Your task to perform on an android device: Clear the shopping cart on ebay.com. Search for "acer predator" on ebay.com, select the first entry, add it to the cart, then select checkout. Image 0: 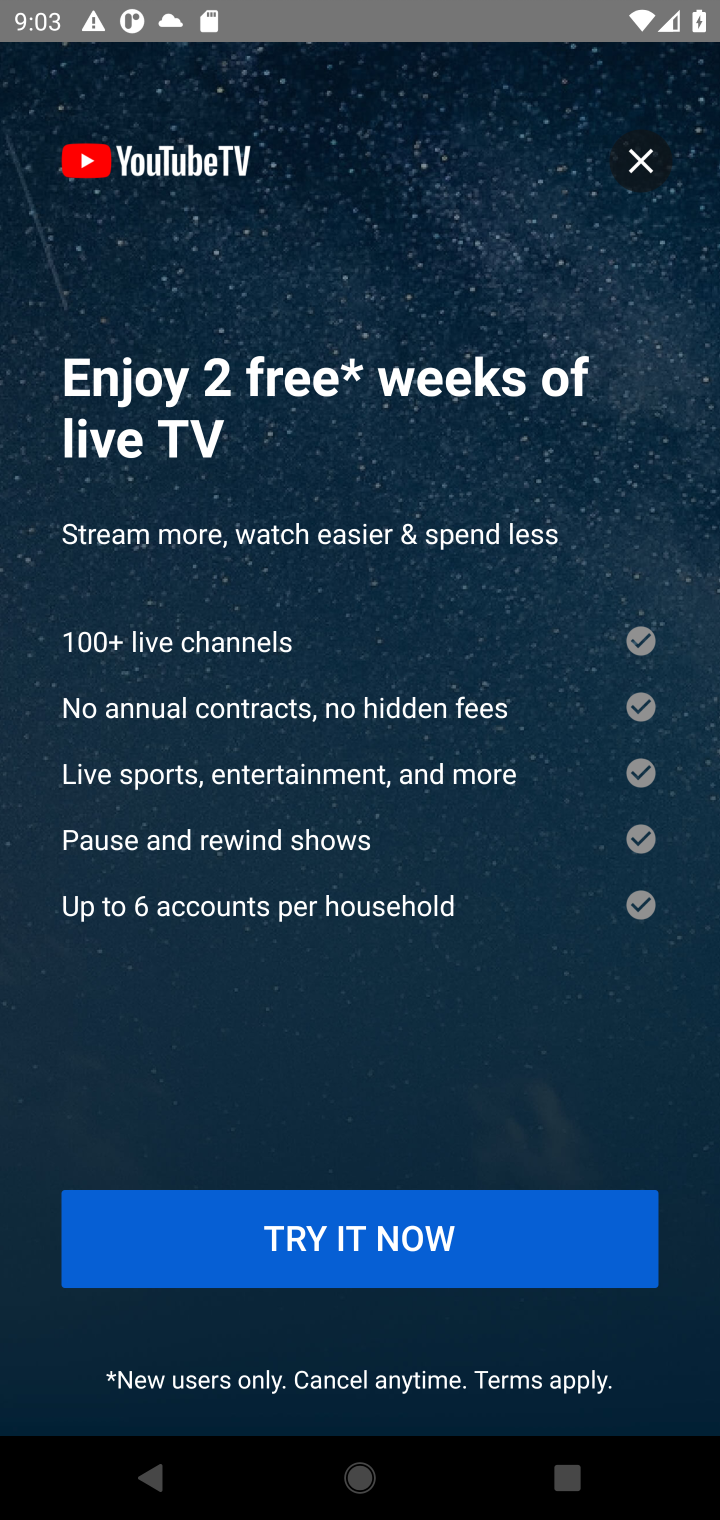
Step 0: press home button
Your task to perform on an android device: Clear the shopping cart on ebay.com. Search for "acer predator" on ebay.com, select the first entry, add it to the cart, then select checkout. Image 1: 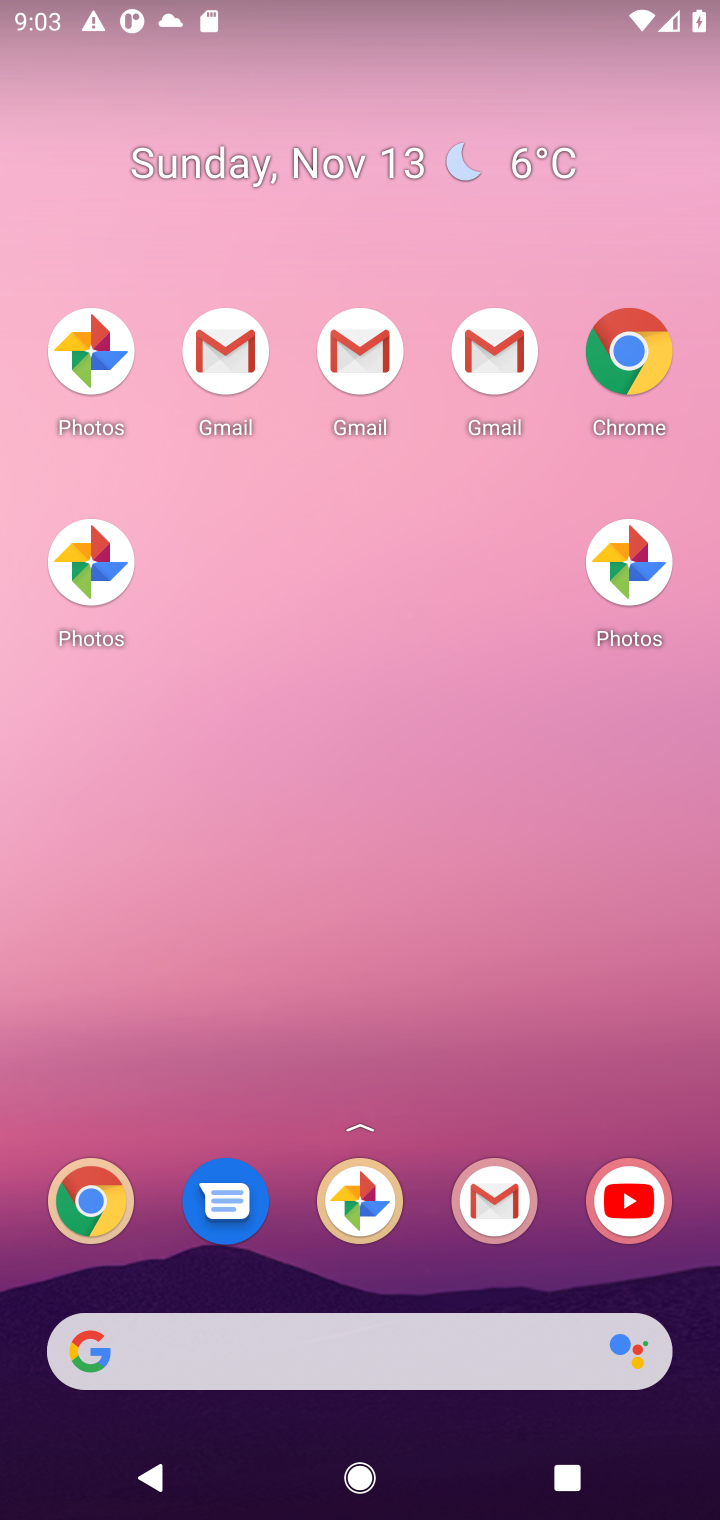
Step 1: drag from (396, 1301) to (433, 232)
Your task to perform on an android device: Clear the shopping cart on ebay.com. Search for "acer predator" on ebay.com, select the first entry, add it to the cart, then select checkout. Image 2: 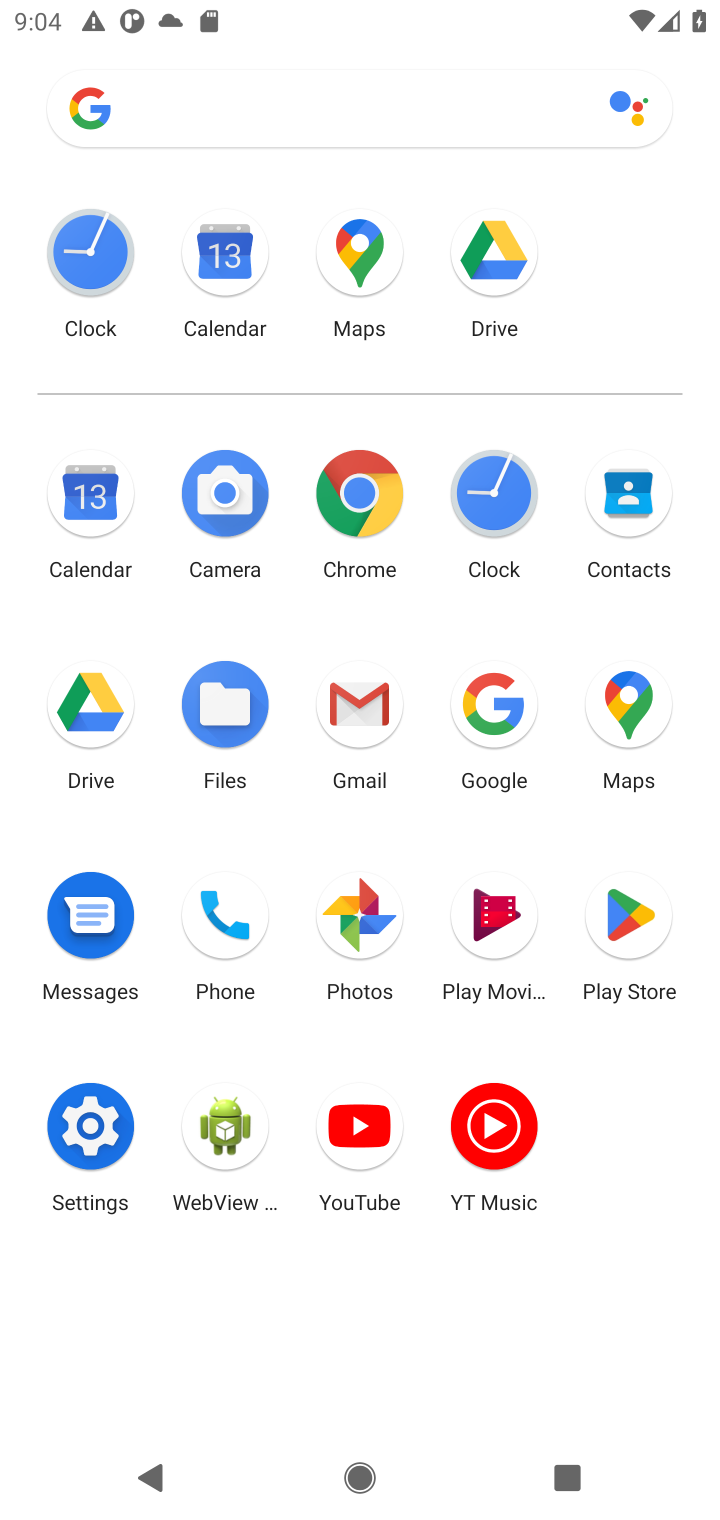
Step 2: click (358, 508)
Your task to perform on an android device: Clear the shopping cart on ebay.com. Search for "acer predator" on ebay.com, select the first entry, add it to the cart, then select checkout. Image 3: 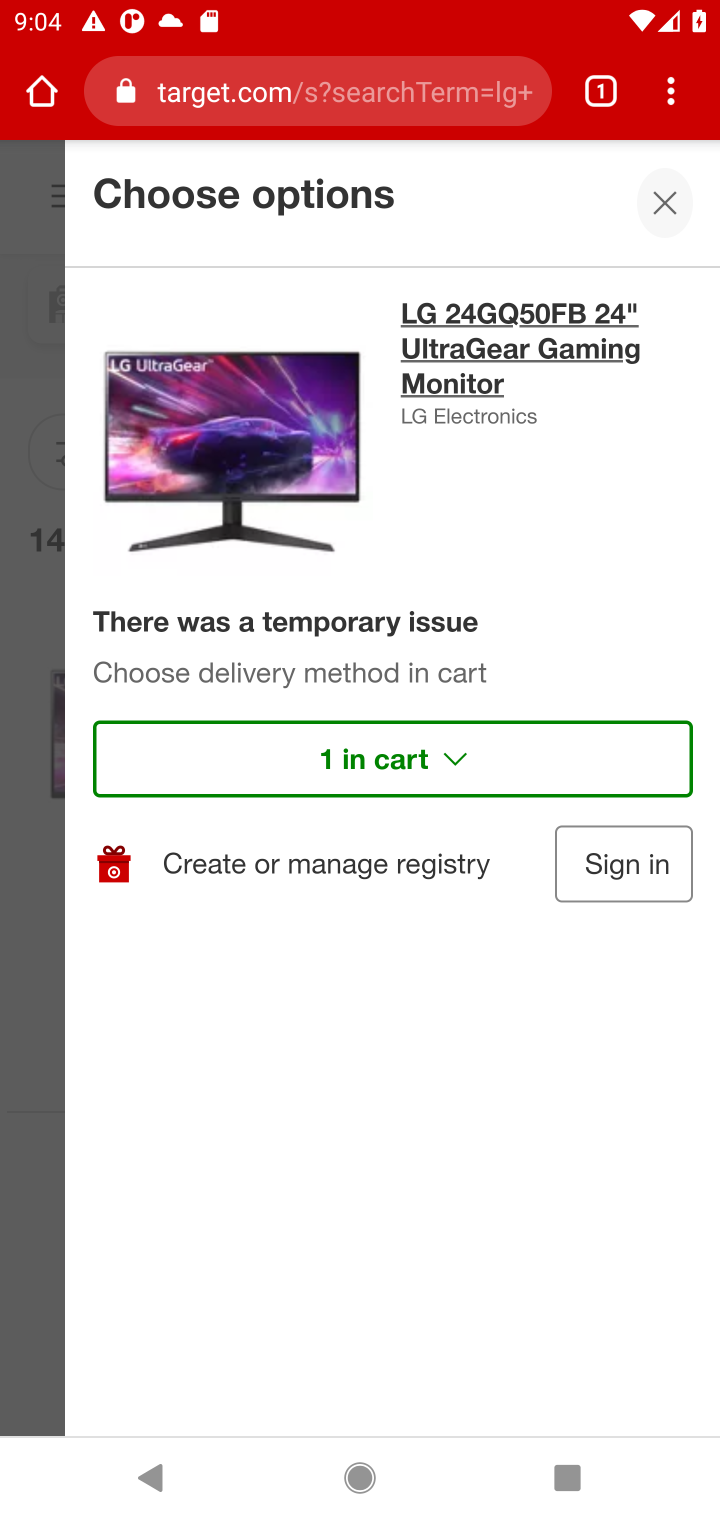
Step 3: click (285, 88)
Your task to perform on an android device: Clear the shopping cart on ebay.com. Search for "acer predator" on ebay.com, select the first entry, add it to the cart, then select checkout. Image 4: 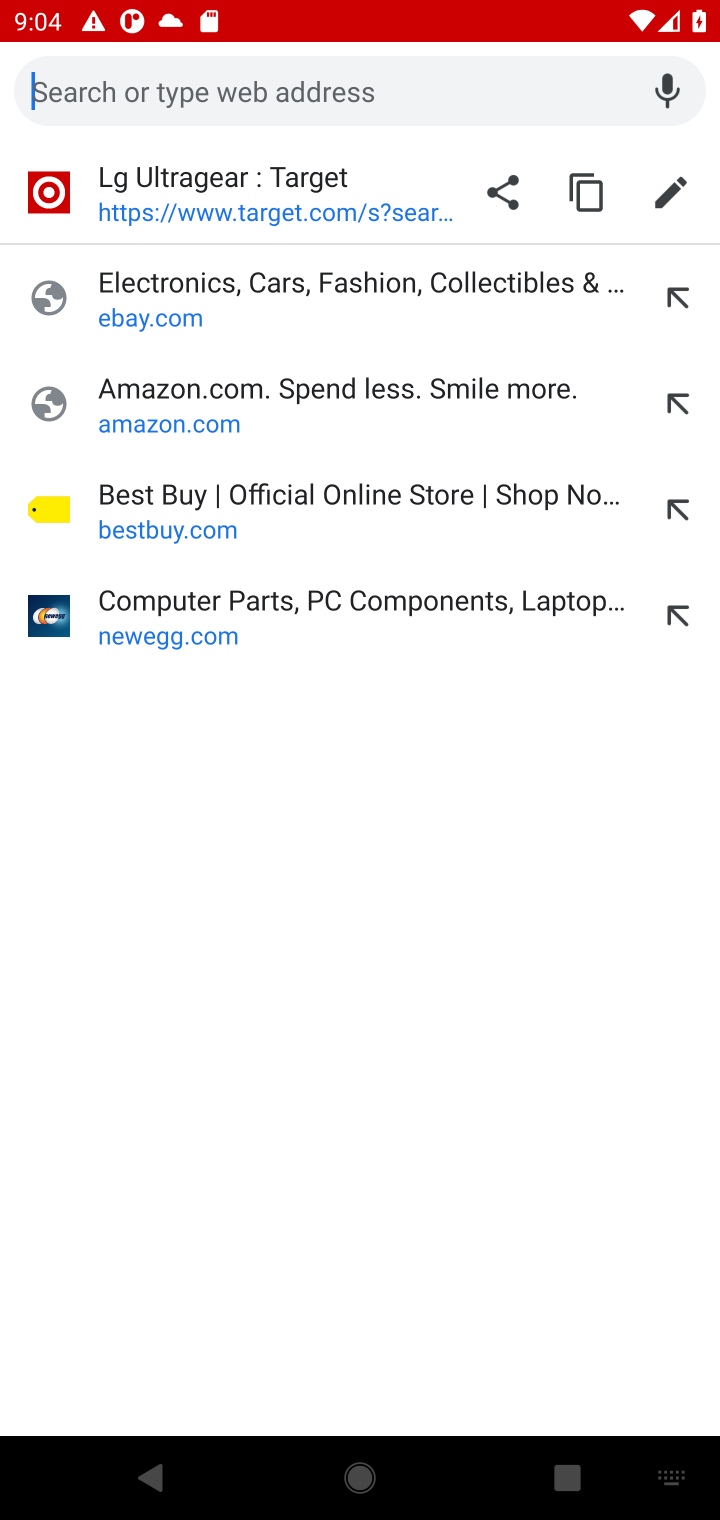
Step 4: type "ebay.com"
Your task to perform on an android device: Clear the shopping cart on ebay.com. Search for "acer predator" on ebay.com, select the first entry, add it to the cart, then select checkout. Image 5: 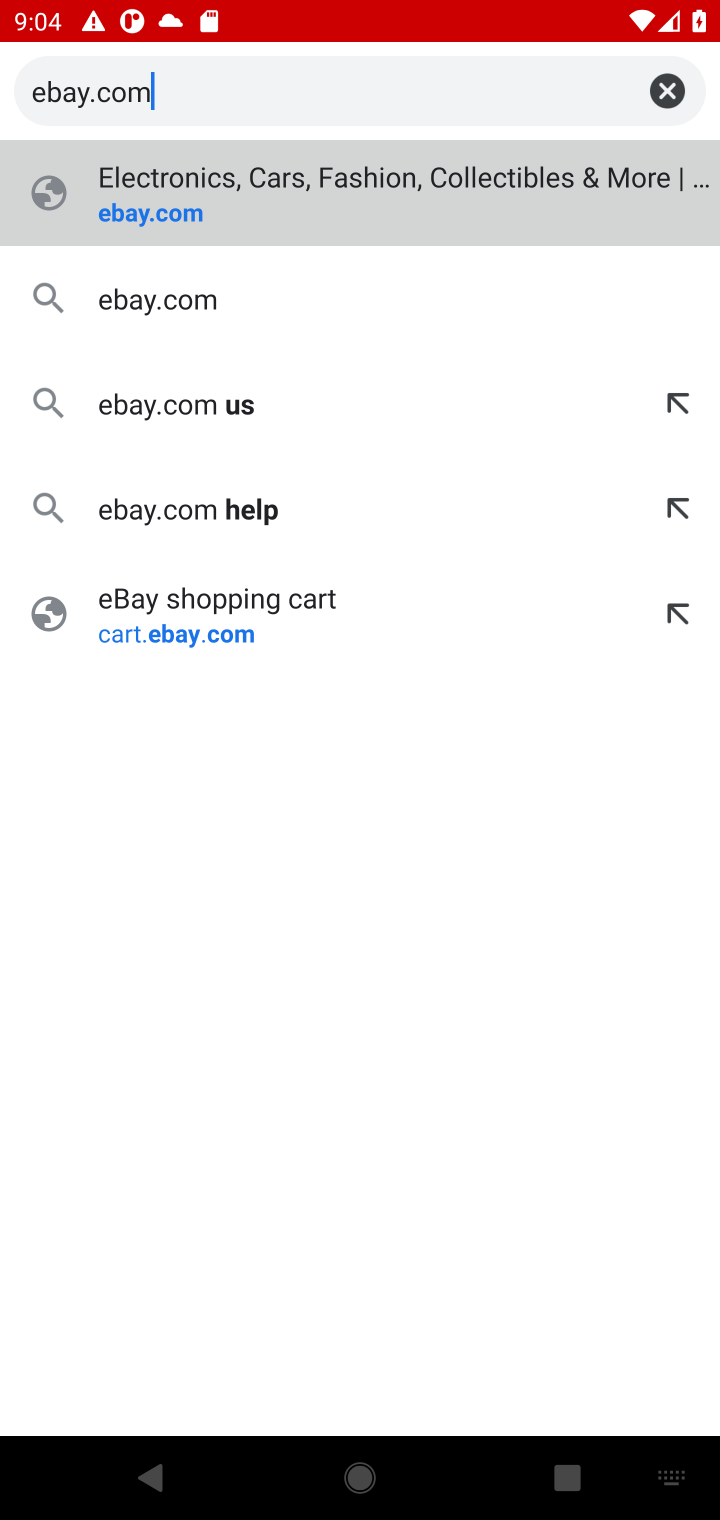
Step 5: press enter
Your task to perform on an android device: Clear the shopping cart on ebay.com. Search for "acer predator" on ebay.com, select the first entry, add it to the cart, then select checkout. Image 6: 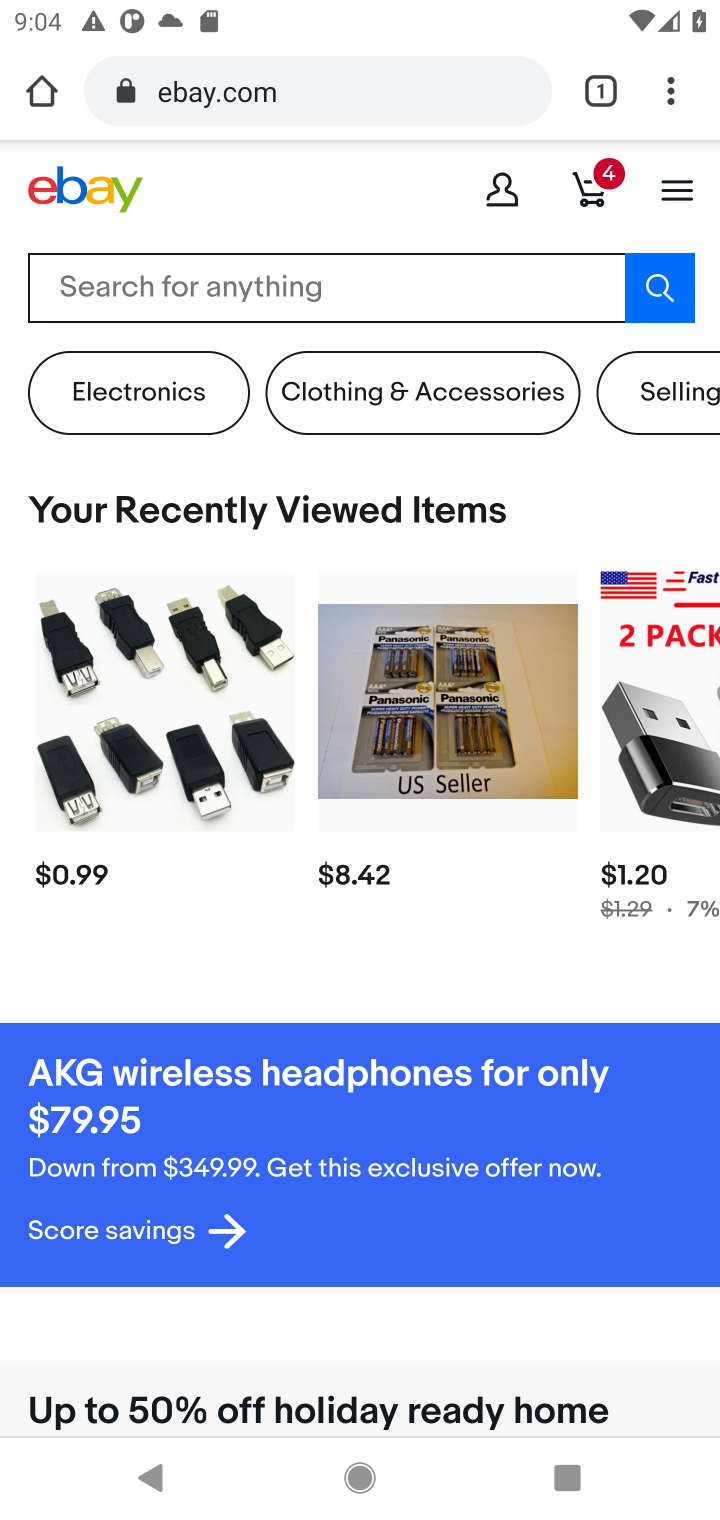
Step 6: click (586, 176)
Your task to perform on an android device: Clear the shopping cart on ebay.com. Search for "acer predator" on ebay.com, select the first entry, add it to the cart, then select checkout. Image 7: 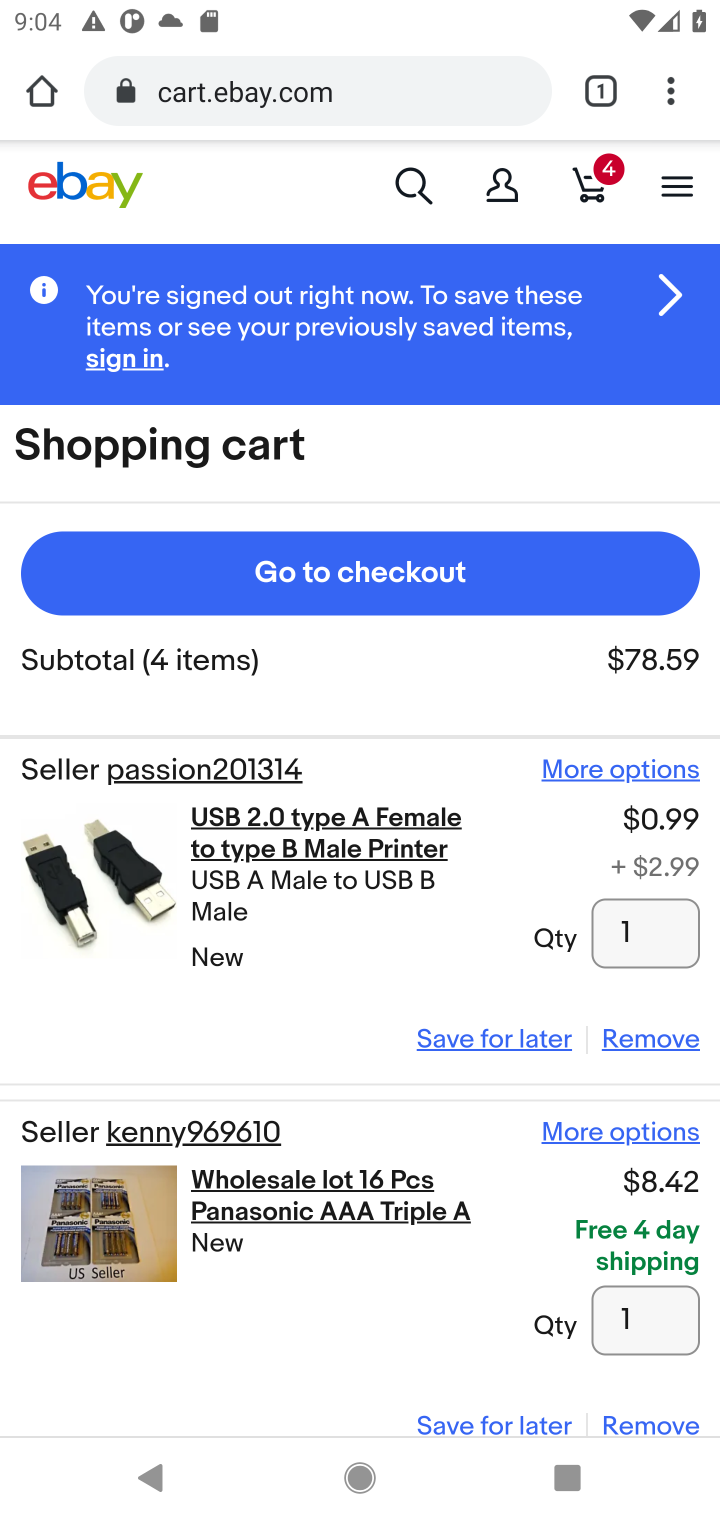
Step 7: click (633, 1040)
Your task to perform on an android device: Clear the shopping cart on ebay.com. Search for "acer predator" on ebay.com, select the first entry, add it to the cart, then select checkout. Image 8: 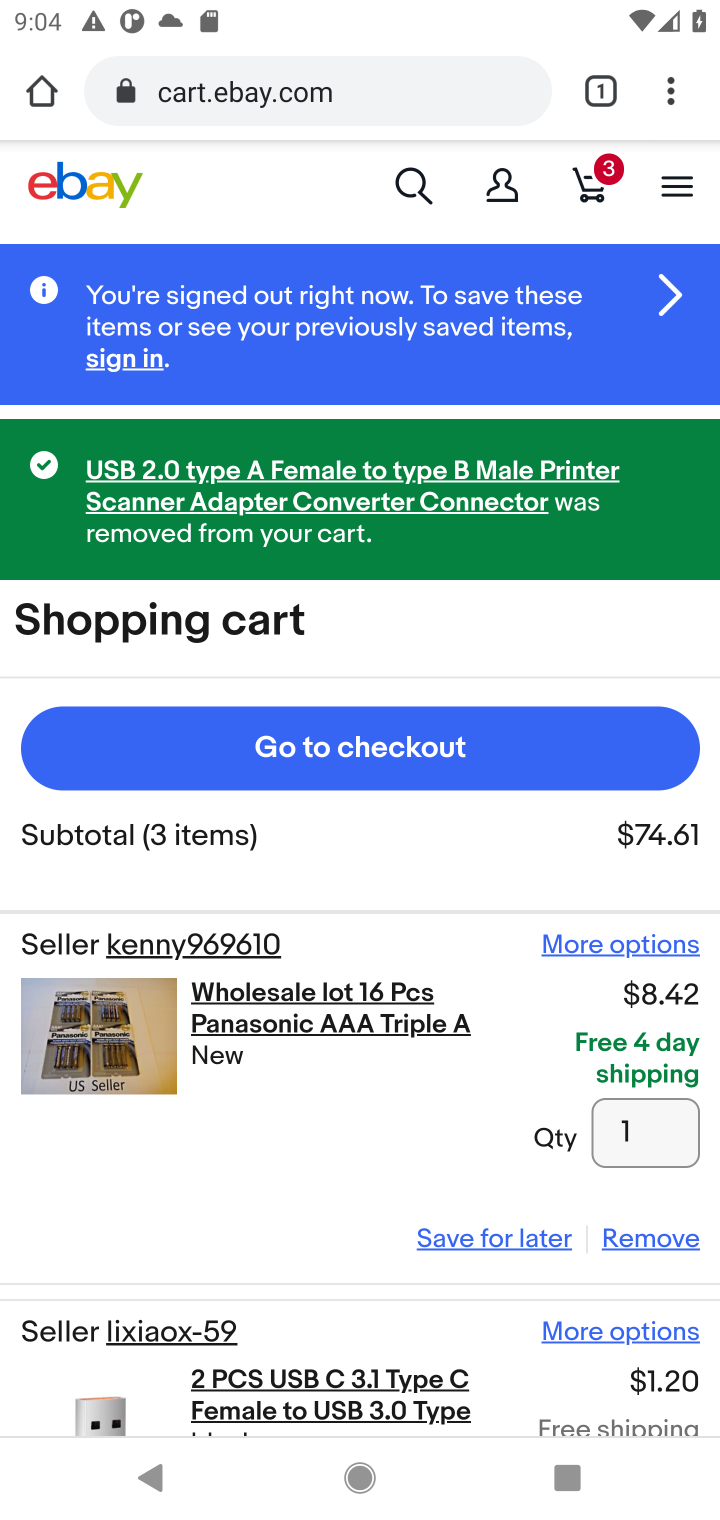
Step 8: click (650, 1226)
Your task to perform on an android device: Clear the shopping cart on ebay.com. Search for "acer predator" on ebay.com, select the first entry, add it to the cart, then select checkout. Image 9: 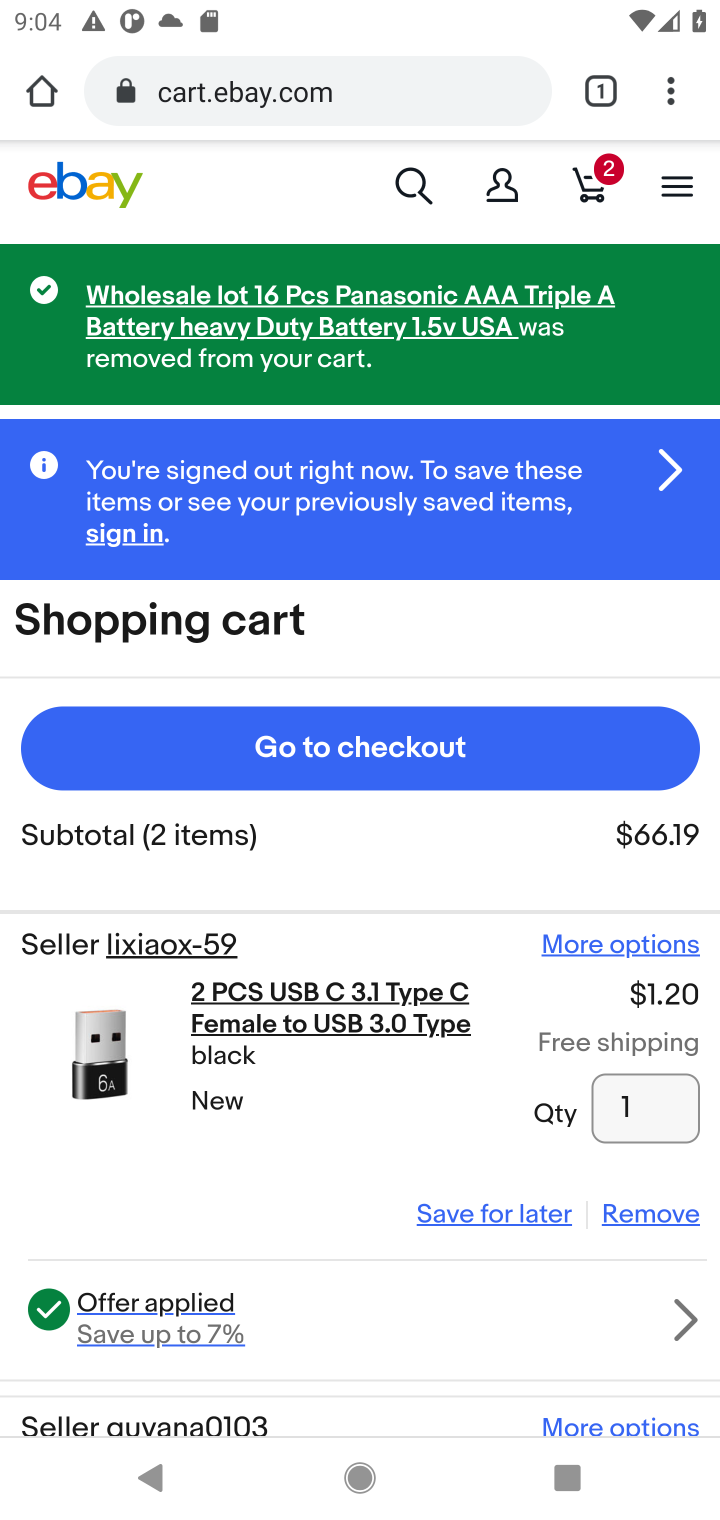
Step 9: click (652, 1211)
Your task to perform on an android device: Clear the shopping cart on ebay.com. Search for "acer predator" on ebay.com, select the first entry, add it to the cart, then select checkout. Image 10: 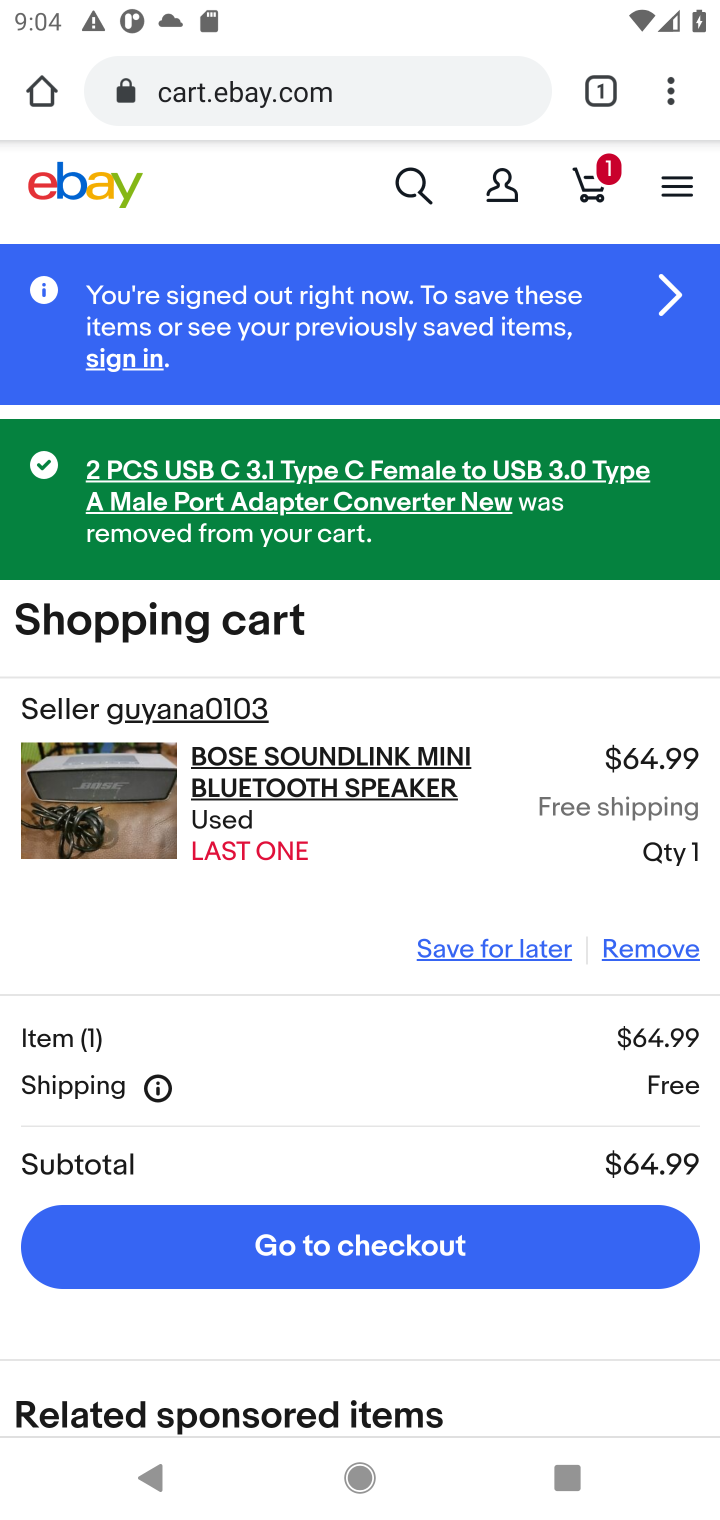
Step 10: click (658, 957)
Your task to perform on an android device: Clear the shopping cart on ebay.com. Search for "acer predator" on ebay.com, select the first entry, add it to the cart, then select checkout. Image 11: 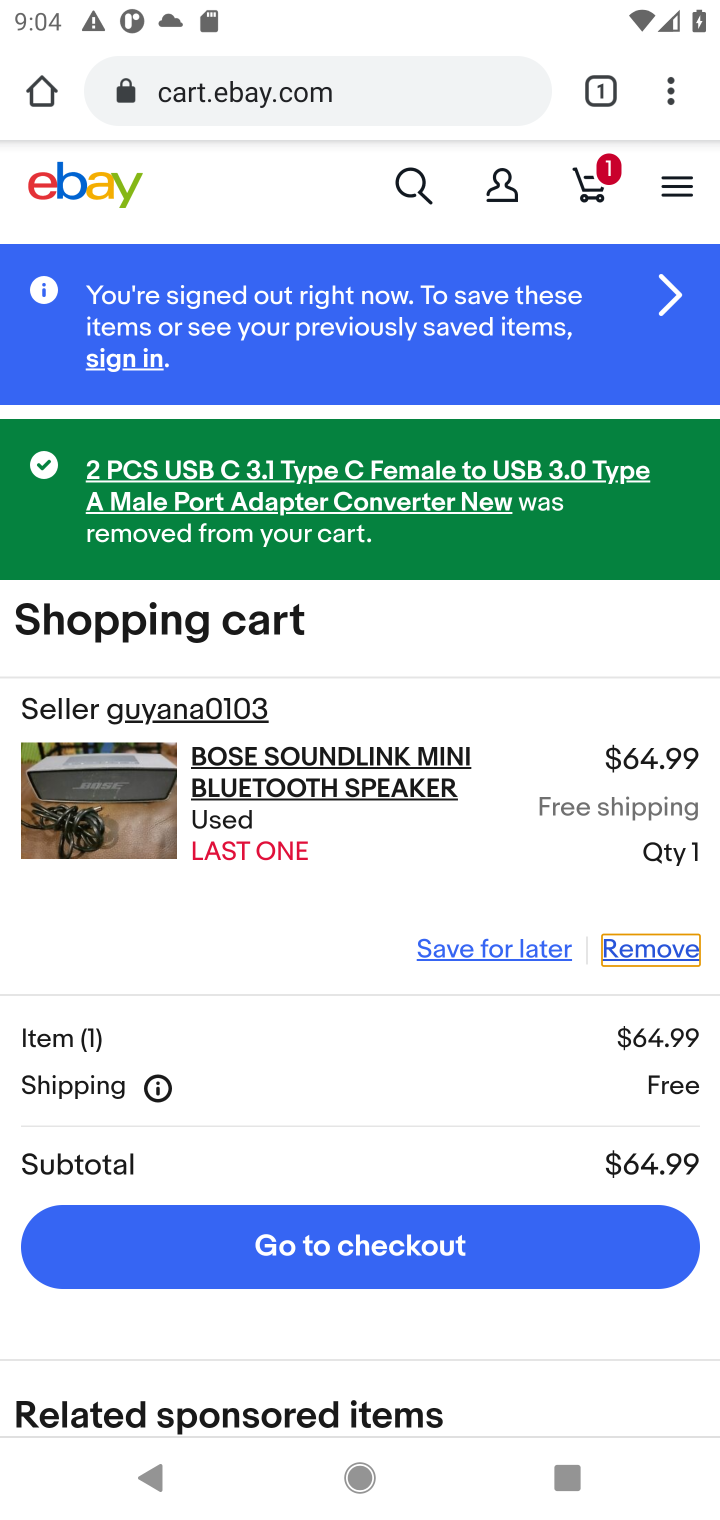
Step 11: click (651, 944)
Your task to perform on an android device: Clear the shopping cart on ebay.com. Search for "acer predator" on ebay.com, select the first entry, add it to the cart, then select checkout. Image 12: 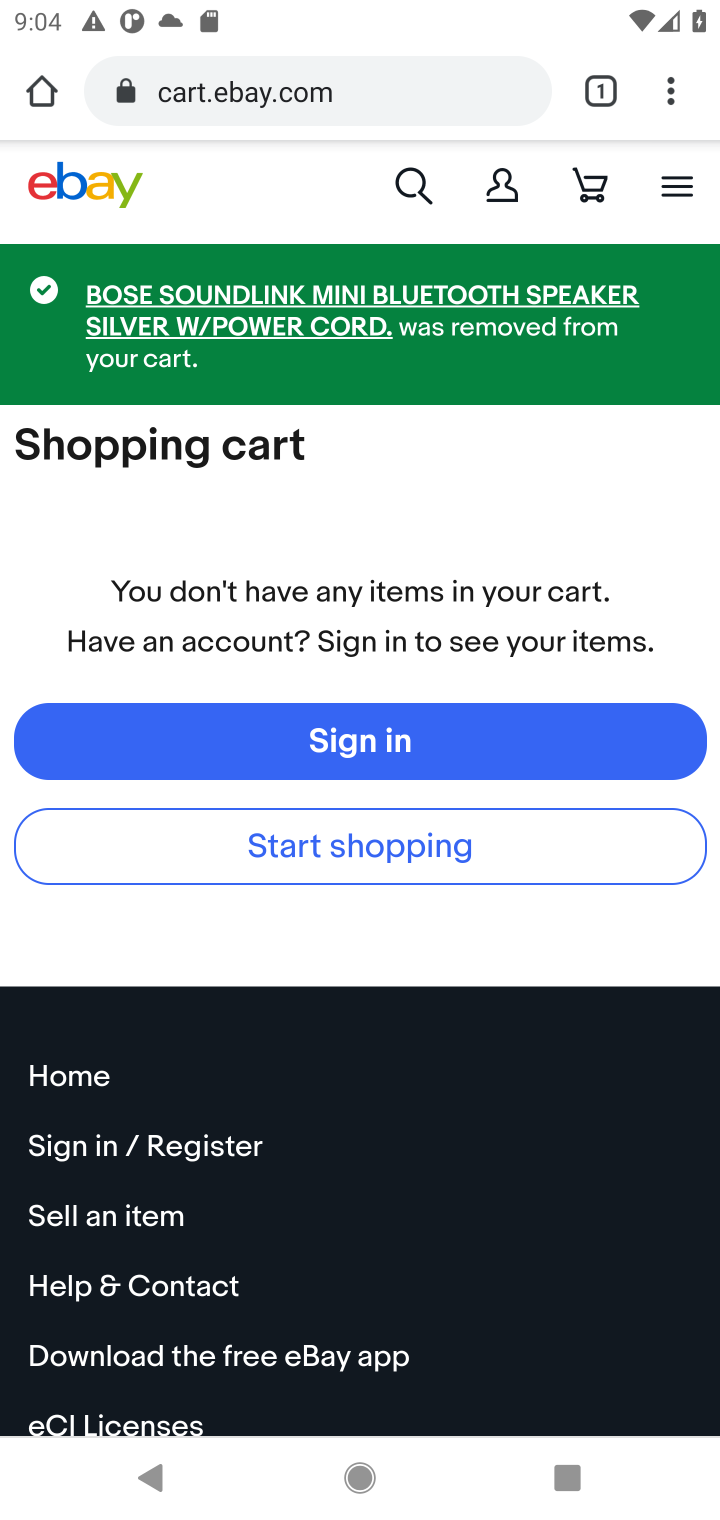
Step 12: click (405, 194)
Your task to perform on an android device: Clear the shopping cart on ebay.com. Search for "acer predator" on ebay.com, select the first entry, add it to the cart, then select checkout. Image 13: 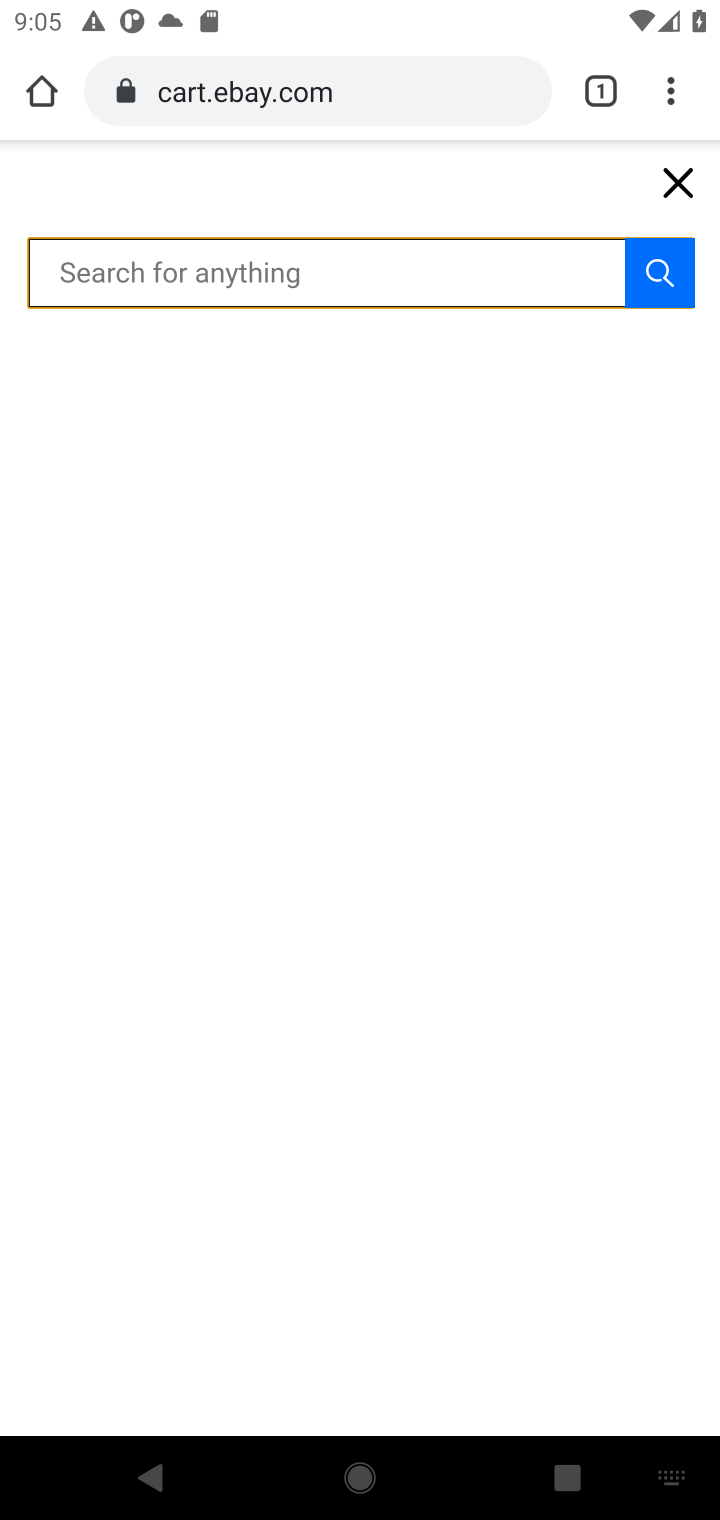
Step 13: type "acer predator"
Your task to perform on an android device: Clear the shopping cart on ebay.com. Search for "acer predator" on ebay.com, select the first entry, add it to the cart, then select checkout. Image 14: 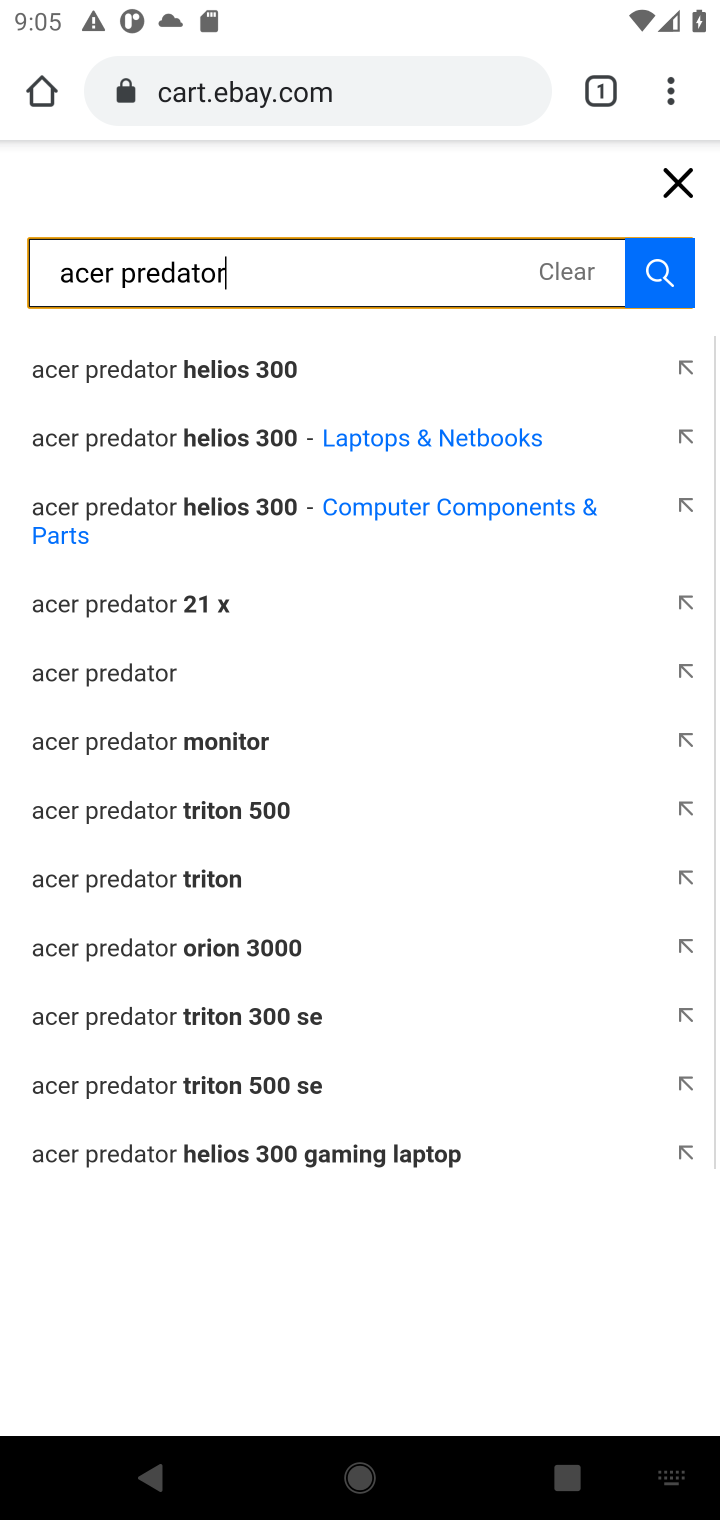
Step 14: press enter
Your task to perform on an android device: Clear the shopping cart on ebay.com. Search for "acer predator" on ebay.com, select the first entry, add it to the cart, then select checkout. Image 15: 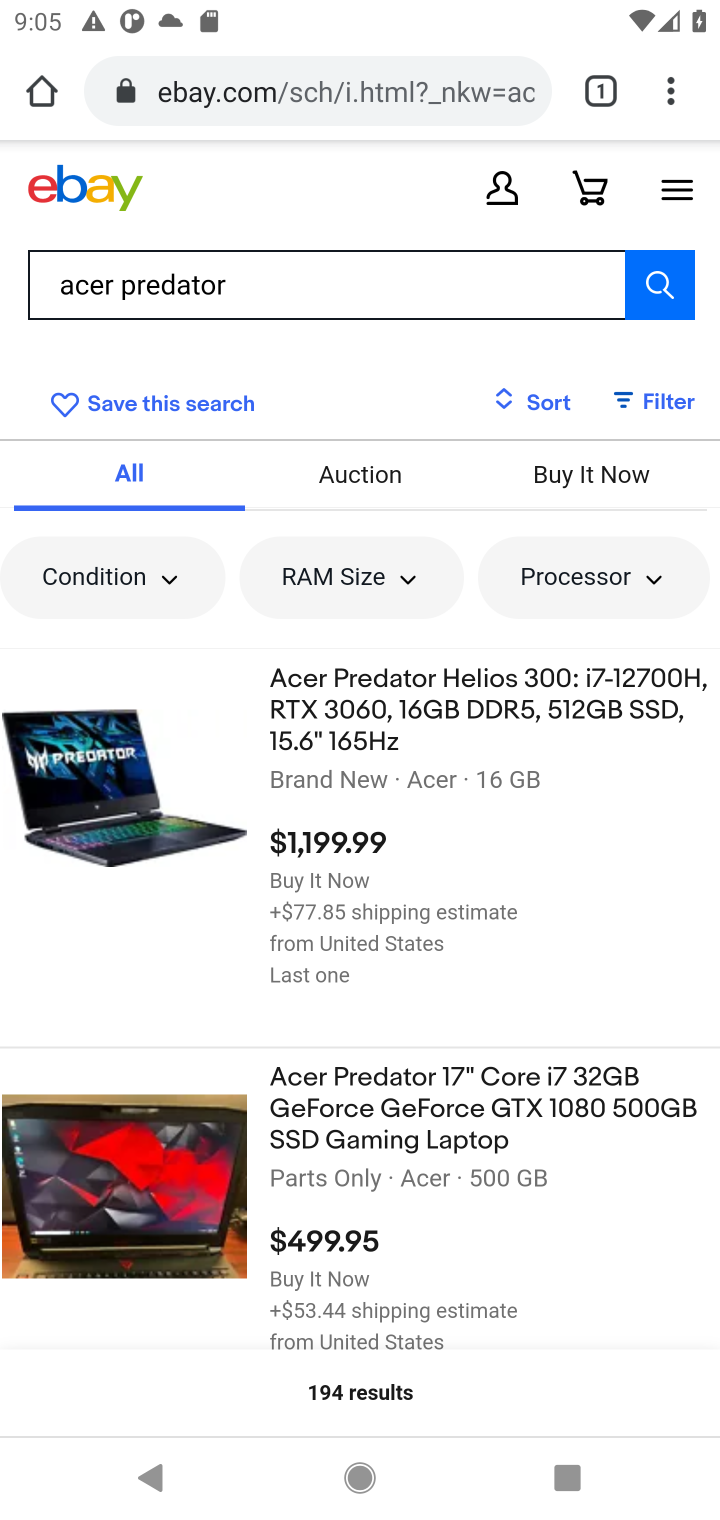
Step 15: click (404, 708)
Your task to perform on an android device: Clear the shopping cart on ebay.com. Search for "acer predator" on ebay.com, select the first entry, add it to the cart, then select checkout. Image 16: 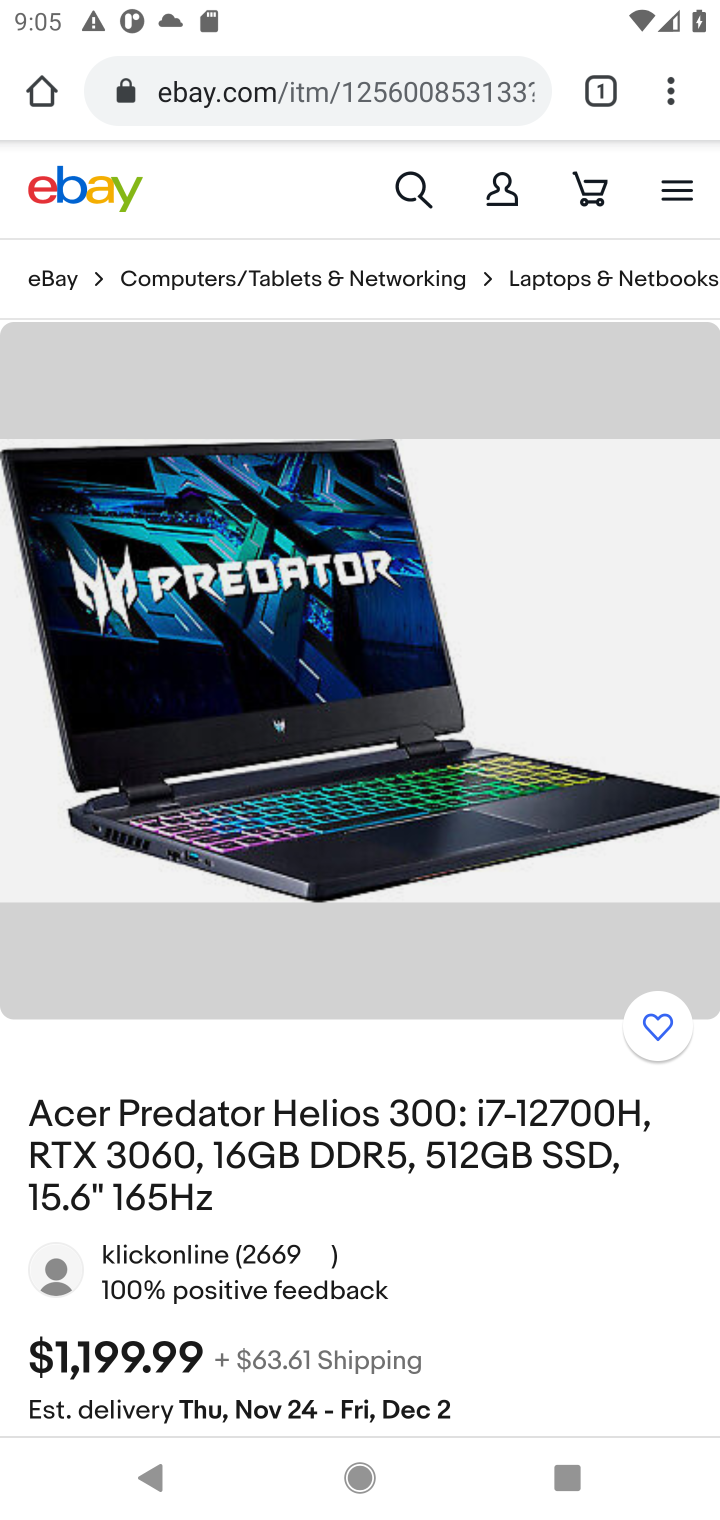
Step 16: drag from (483, 1179) to (455, 158)
Your task to perform on an android device: Clear the shopping cart on ebay.com. Search for "acer predator" on ebay.com, select the first entry, add it to the cart, then select checkout. Image 17: 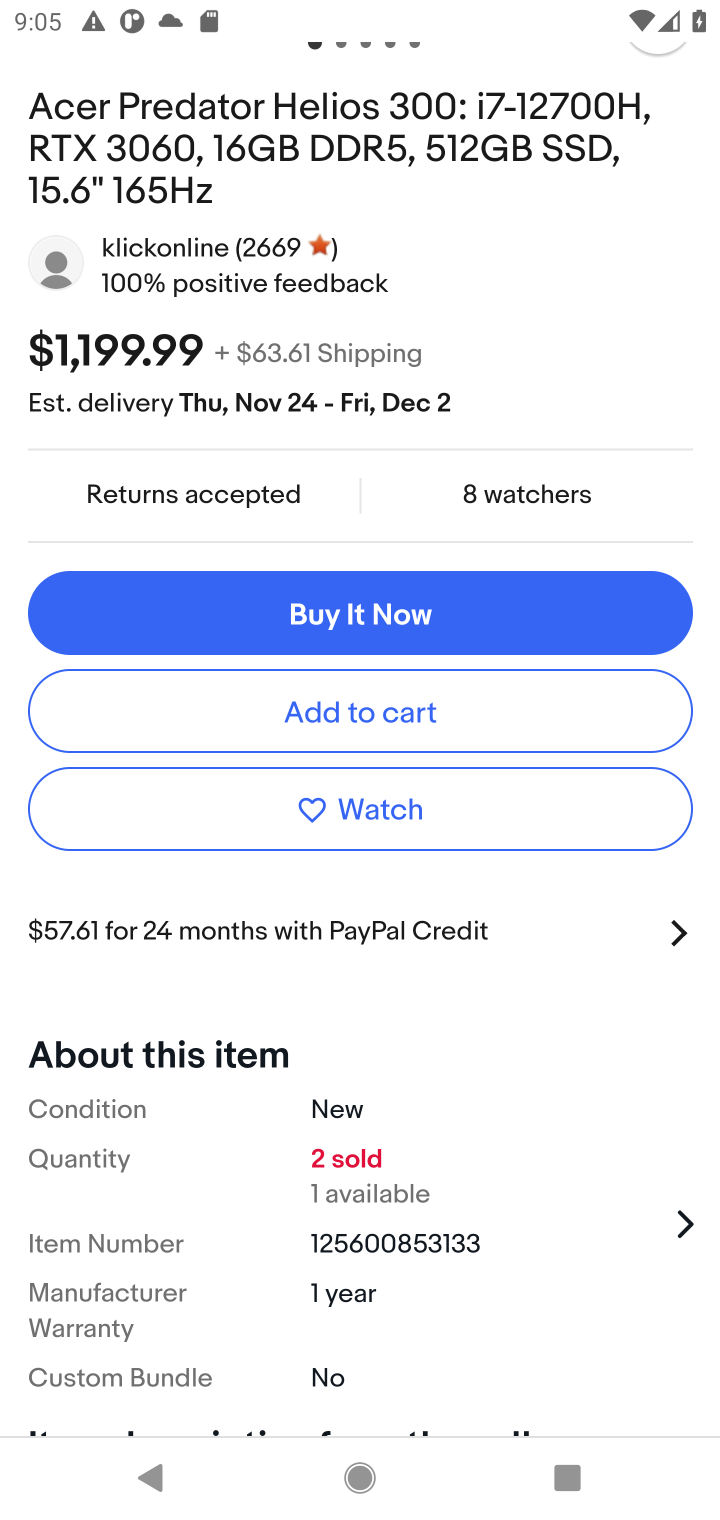
Step 17: click (501, 704)
Your task to perform on an android device: Clear the shopping cart on ebay.com. Search for "acer predator" on ebay.com, select the first entry, add it to the cart, then select checkout. Image 18: 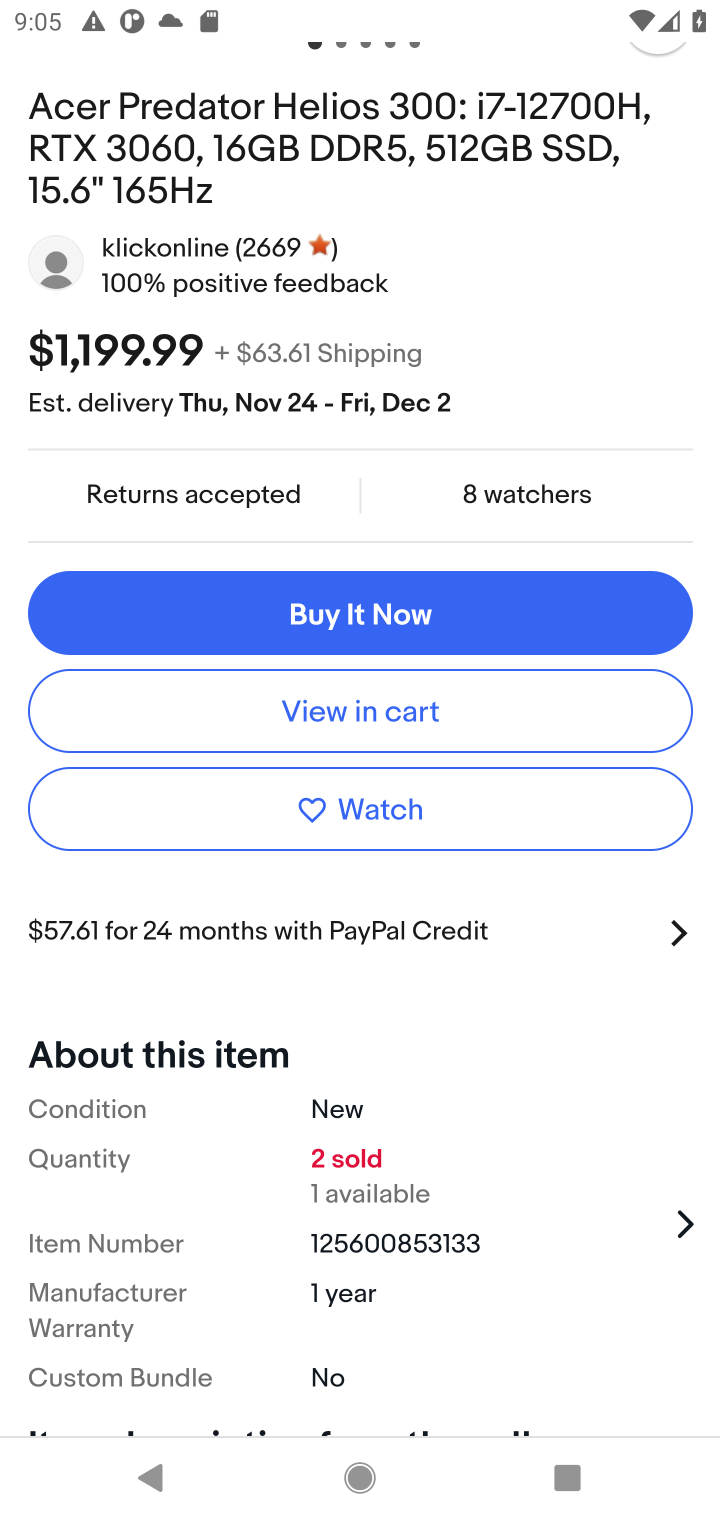
Step 18: click (509, 714)
Your task to perform on an android device: Clear the shopping cart on ebay.com. Search for "acer predator" on ebay.com, select the first entry, add it to the cart, then select checkout. Image 19: 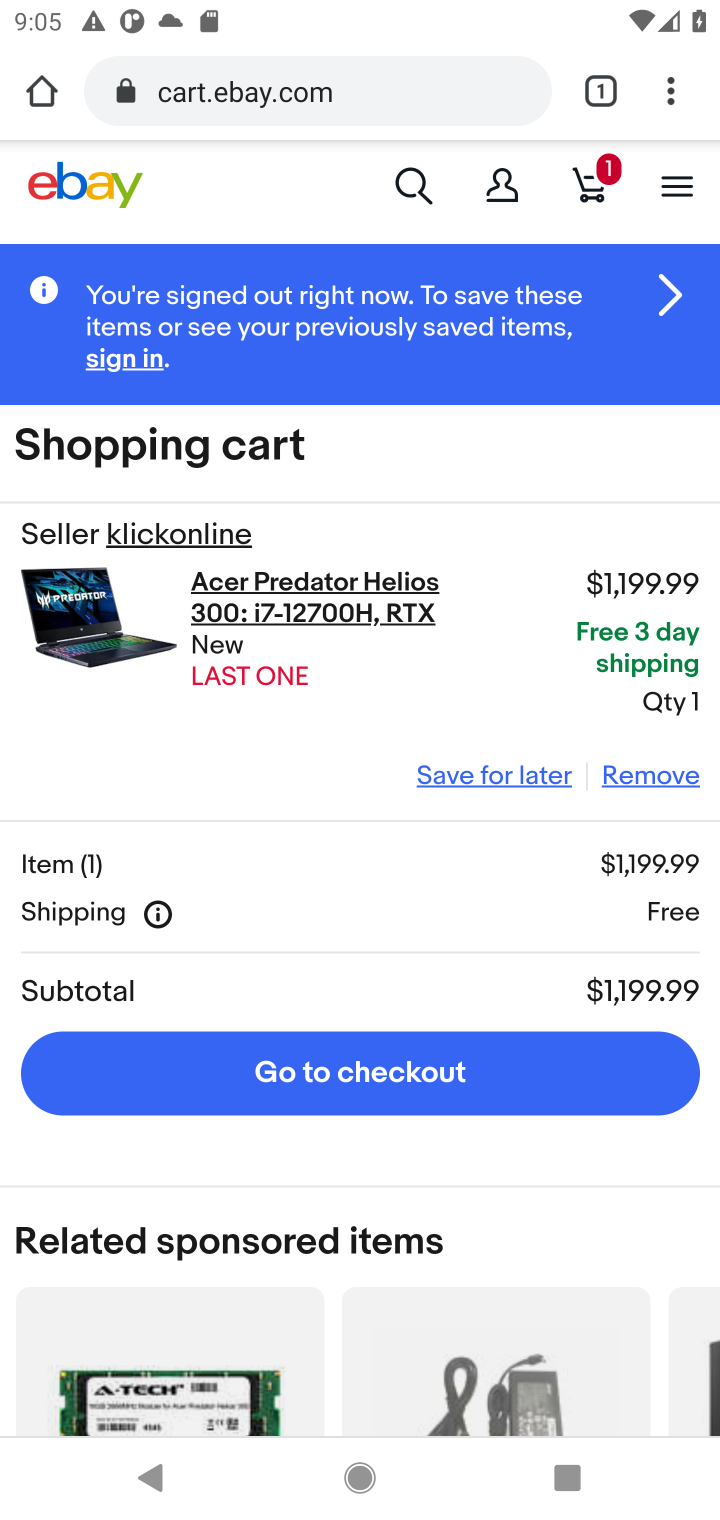
Step 19: click (413, 1085)
Your task to perform on an android device: Clear the shopping cart on ebay.com. Search for "acer predator" on ebay.com, select the first entry, add it to the cart, then select checkout. Image 20: 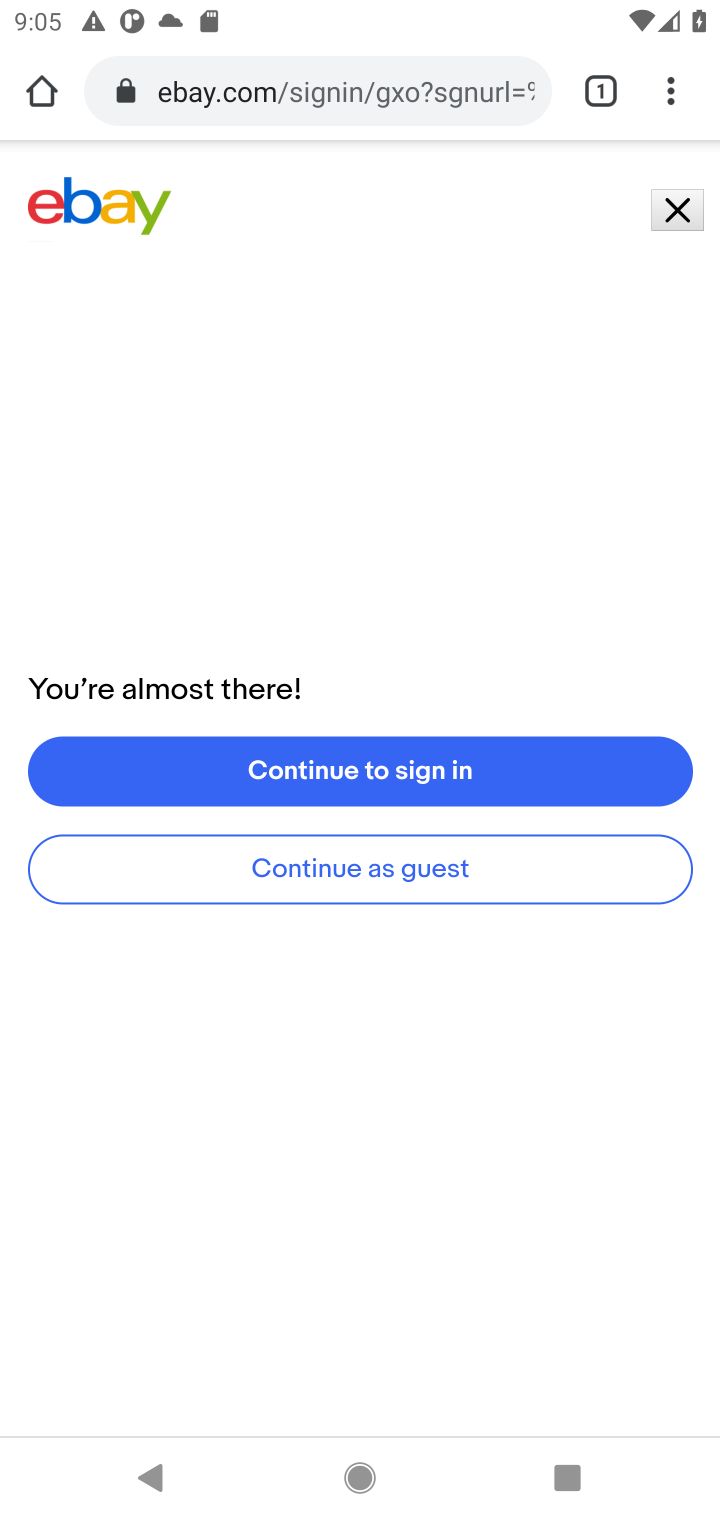
Step 20: task complete